Your task to perform on an android device: change the upload size in google photos Image 0: 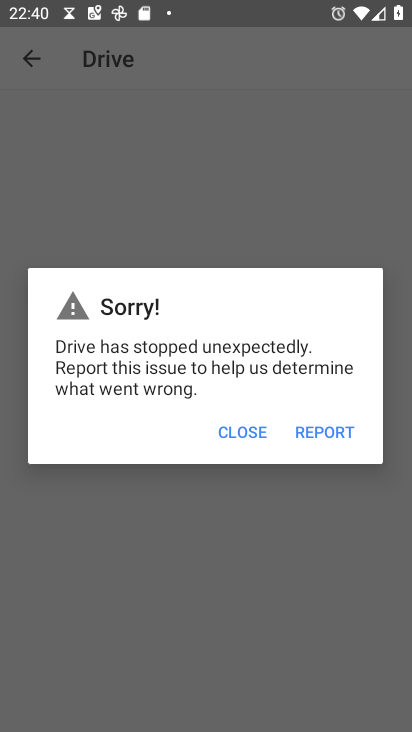
Step 0: press home button
Your task to perform on an android device: change the upload size in google photos Image 1: 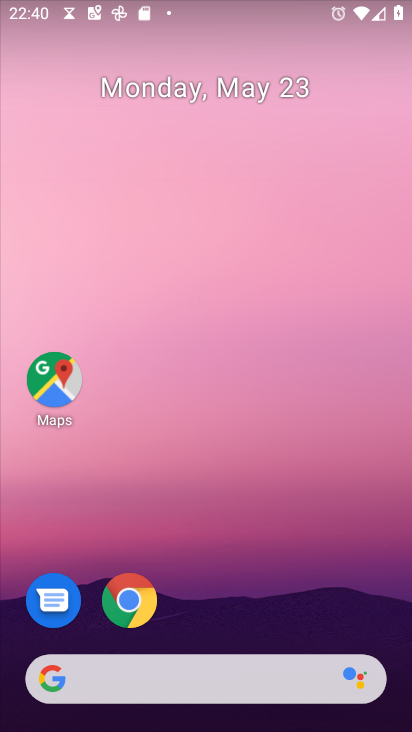
Step 1: drag from (239, 725) to (235, 77)
Your task to perform on an android device: change the upload size in google photos Image 2: 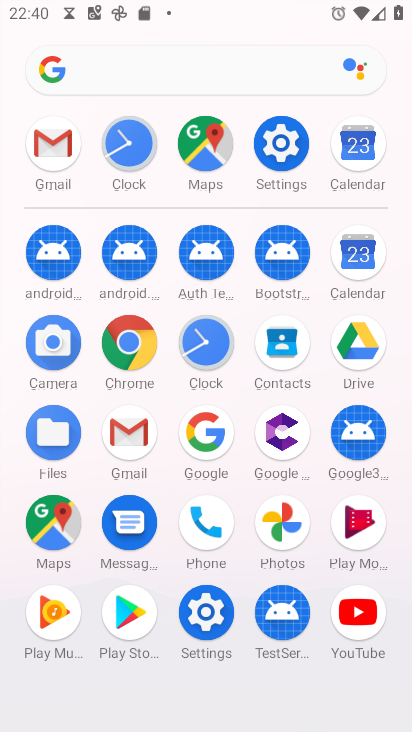
Step 2: click (279, 515)
Your task to perform on an android device: change the upload size in google photos Image 3: 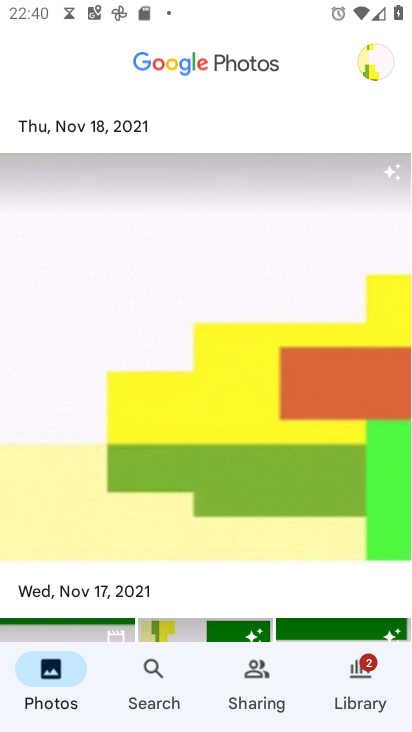
Step 3: click (378, 62)
Your task to perform on an android device: change the upload size in google photos Image 4: 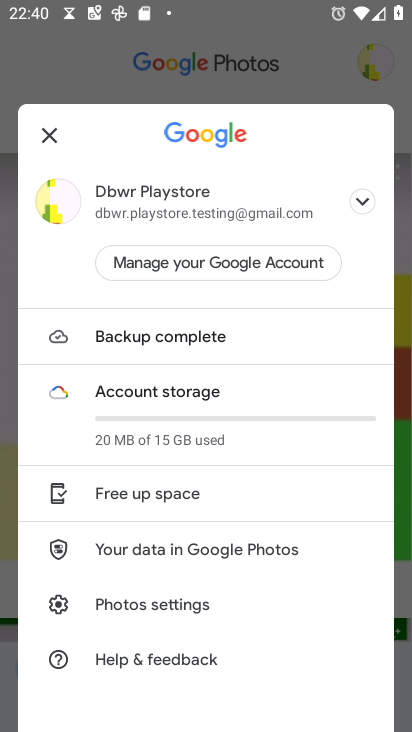
Step 4: click (141, 602)
Your task to perform on an android device: change the upload size in google photos Image 5: 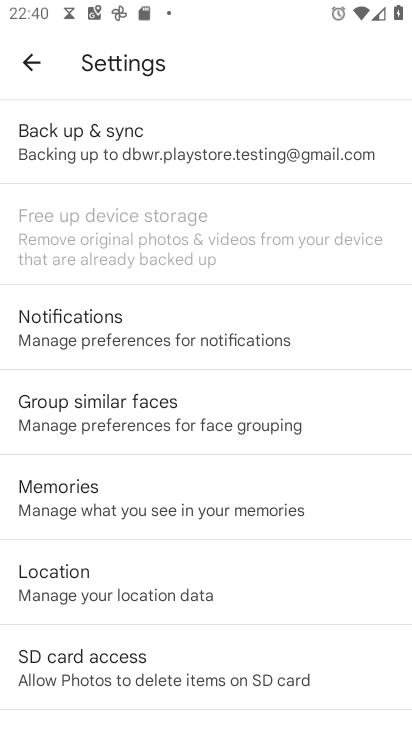
Step 5: click (64, 145)
Your task to perform on an android device: change the upload size in google photos Image 6: 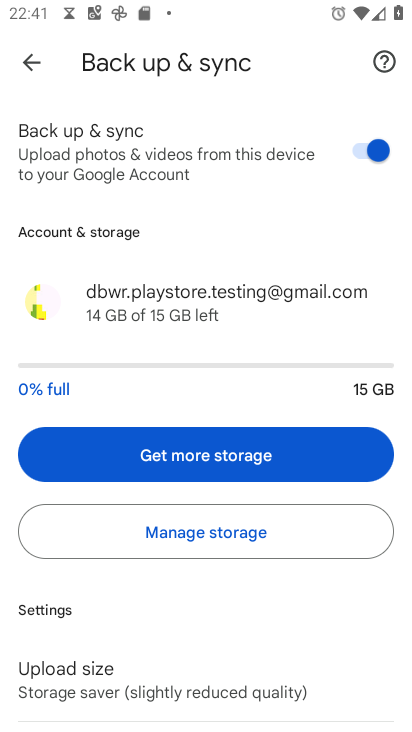
Step 6: click (114, 693)
Your task to perform on an android device: change the upload size in google photos Image 7: 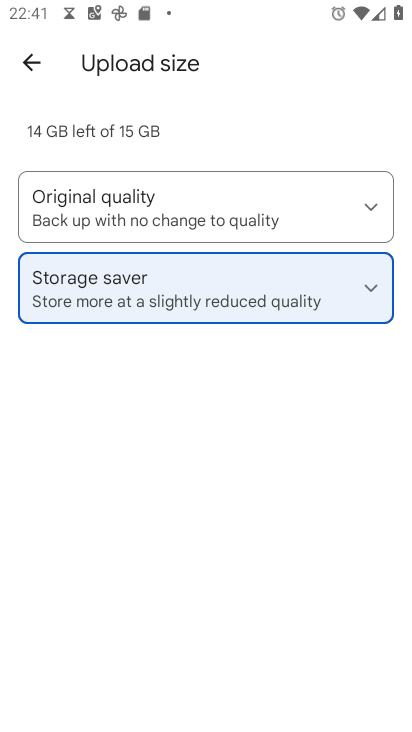
Step 7: click (370, 202)
Your task to perform on an android device: change the upload size in google photos Image 8: 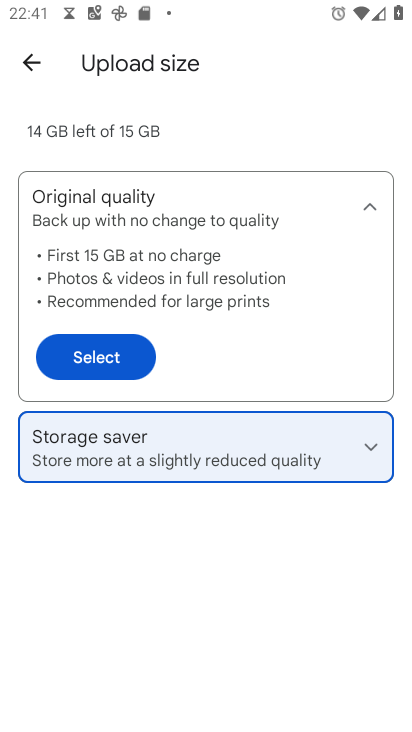
Step 8: click (95, 354)
Your task to perform on an android device: change the upload size in google photos Image 9: 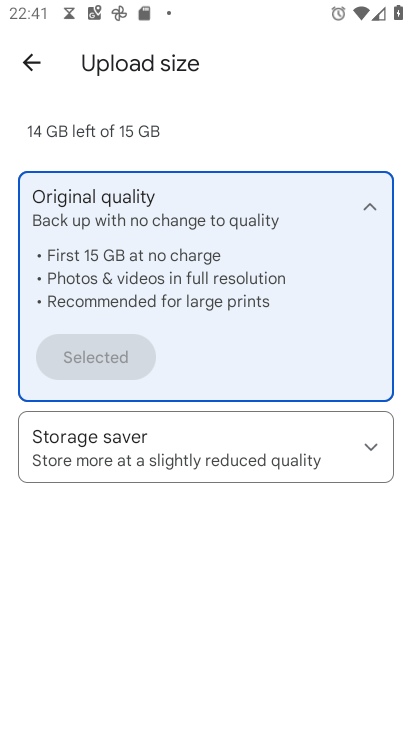
Step 9: task complete